Your task to perform on an android device: add a contact in the contacts app Image 0: 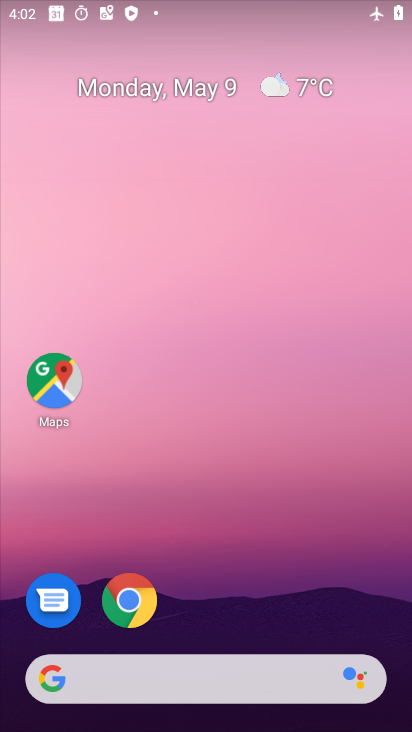
Step 0: drag from (304, 614) to (286, 147)
Your task to perform on an android device: add a contact in the contacts app Image 1: 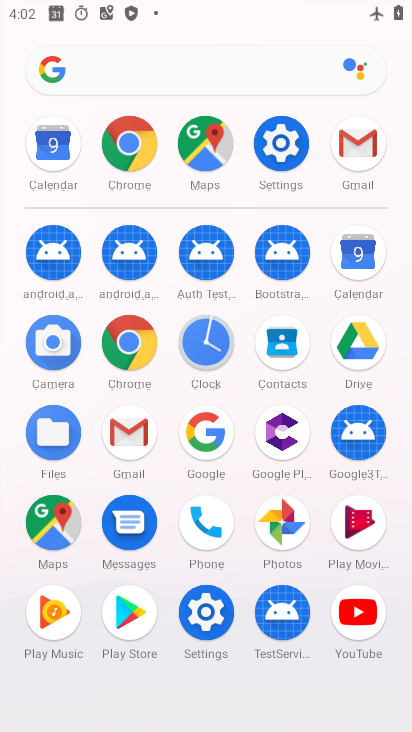
Step 1: click (291, 339)
Your task to perform on an android device: add a contact in the contacts app Image 2: 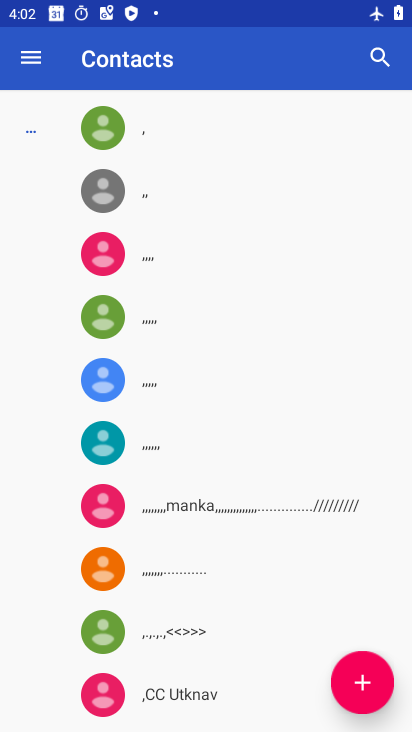
Step 2: click (359, 699)
Your task to perform on an android device: add a contact in the contacts app Image 3: 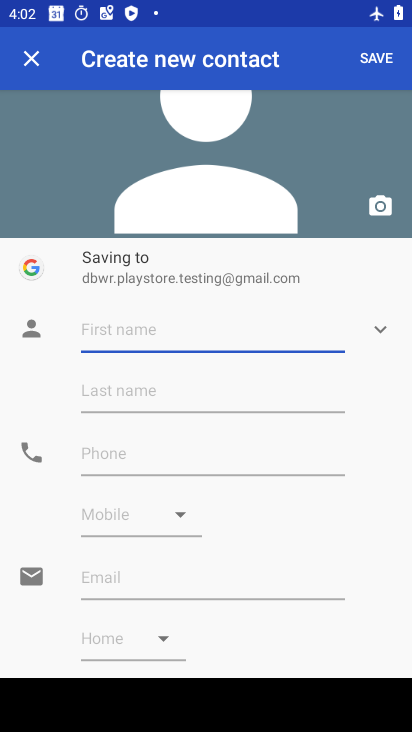
Step 3: click (203, 336)
Your task to perform on an android device: add a contact in the contacts app Image 4: 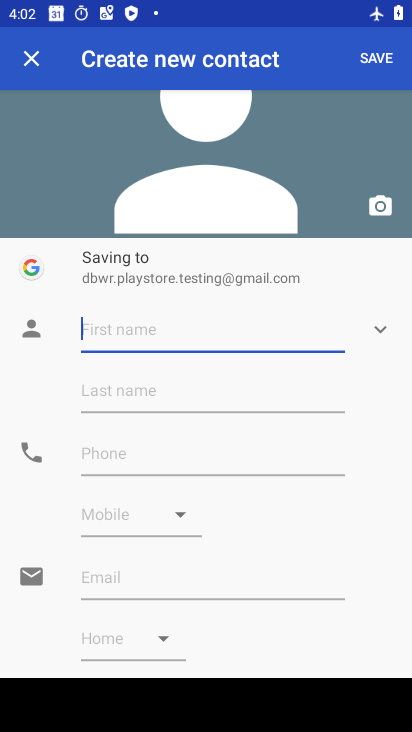
Step 4: type "hghghgh"
Your task to perform on an android device: add a contact in the contacts app Image 5: 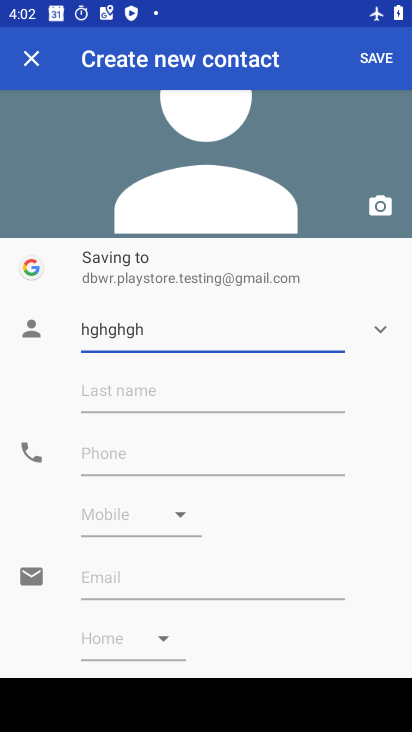
Step 5: click (369, 65)
Your task to perform on an android device: add a contact in the contacts app Image 6: 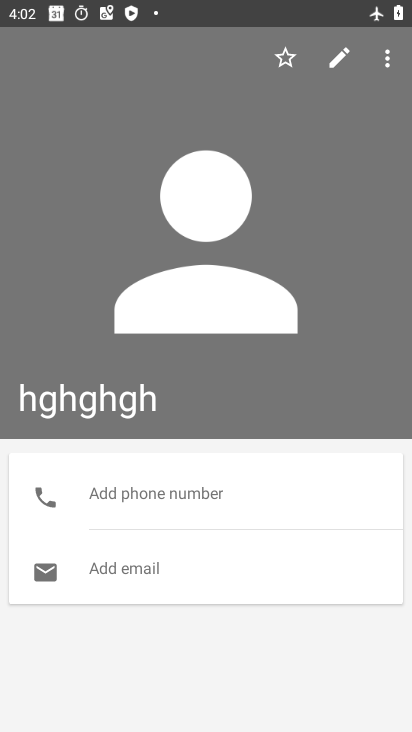
Step 6: task complete